Your task to perform on an android device: Show me productivity apps on the Play Store Image 0: 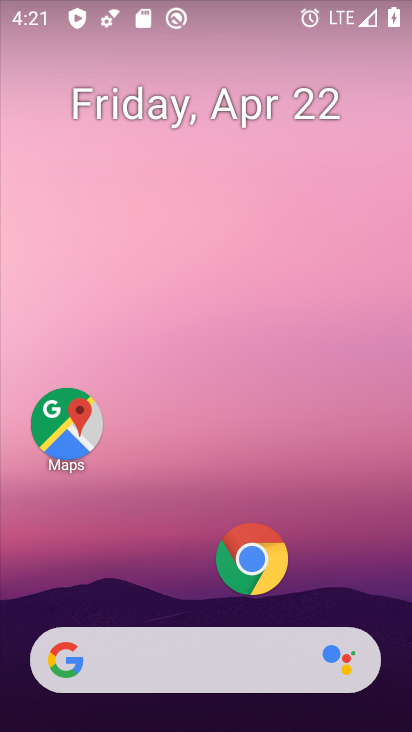
Step 0: drag from (166, 600) to (215, 55)
Your task to perform on an android device: Show me productivity apps on the Play Store Image 1: 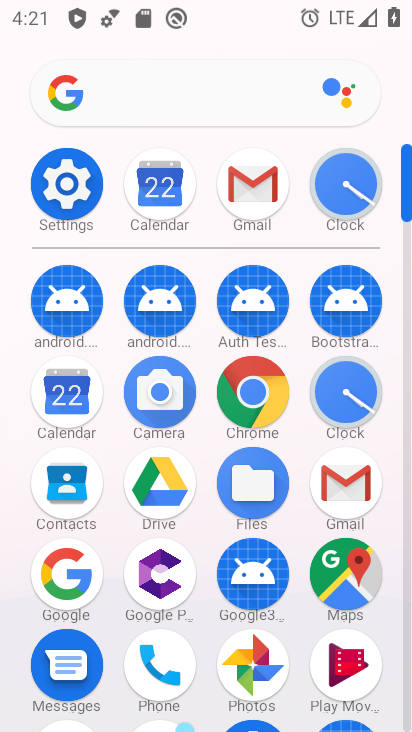
Step 1: drag from (109, 581) to (114, 266)
Your task to perform on an android device: Show me productivity apps on the Play Store Image 2: 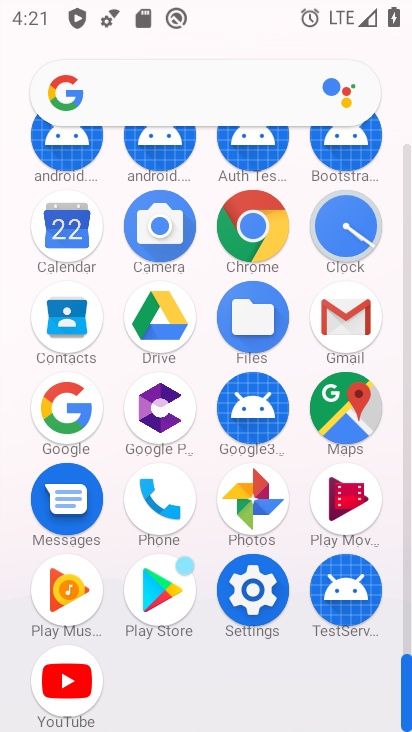
Step 2: click (145, 603)
Your task to perform on an android device: Show me productivity apps on the Play Store Image 3: 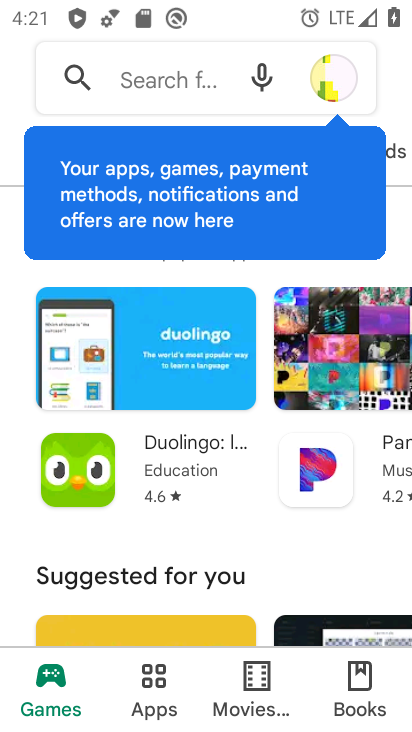
Step 3: click (157, 699)
Your task to perform on an android device: Show me productivity apps on the Play Store Image 4: 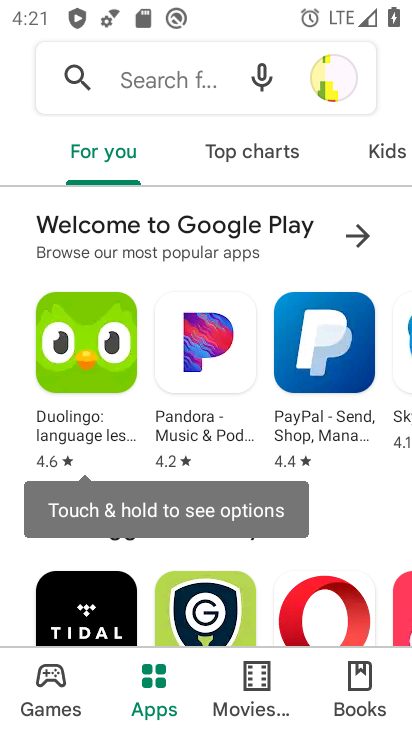
Step 4: drag from (294, 159) to (97, 160)
Your task to perform on an android device: Show me productivity apps on the Play Store Image 5: 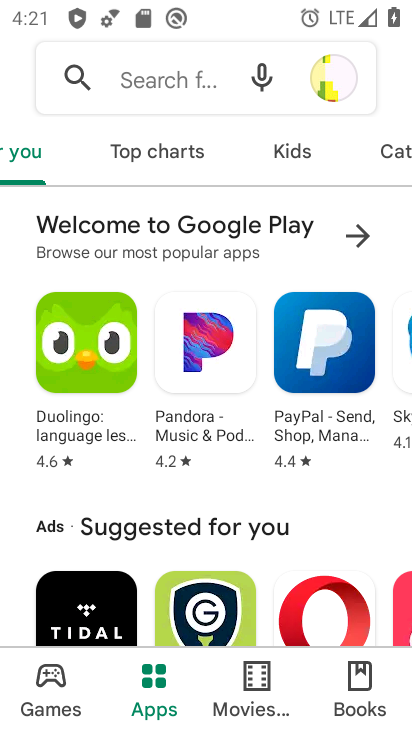
Step 5: drag from (256, 168) to (102, 127)
Your task to perform on an android device: Show me productivity apps on the Play Store Image 6: 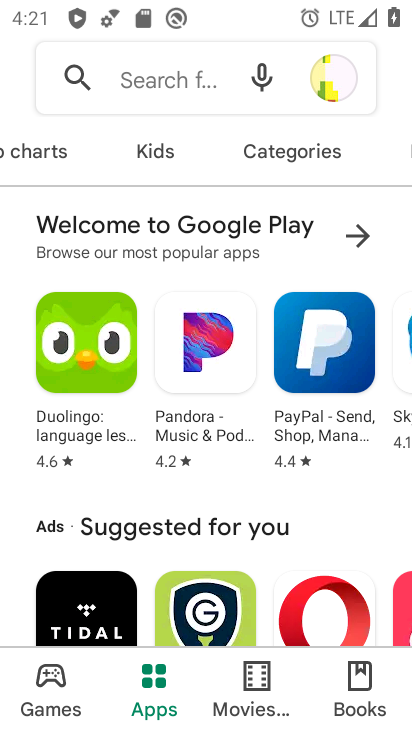
Step 6: click (254, 148)
Your task to perform on an android device: Show me productivity apps on the Play Store Image 7: 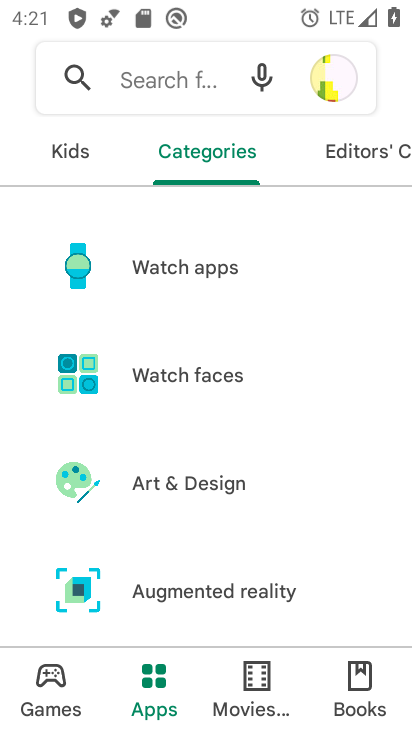
Step 7: drag from (181, 565) to (243, 256)
Your task to perform on an android device: Show me productivity apps on the Play Store Image 8: 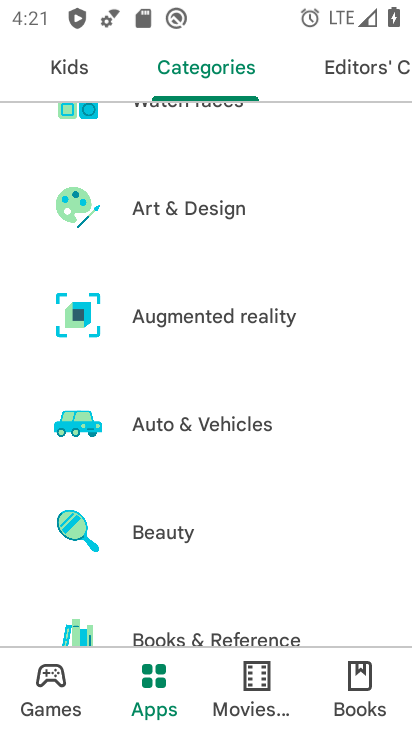
Step 8: drag from (171, 546) to (227, 342)
Your task to perform on an android device: Show me productivity apps on the Play Store Image 9: 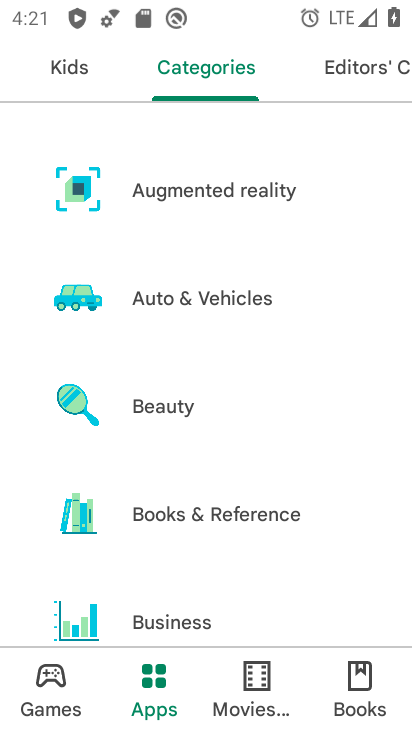
Step 9: drag from (160, 546) to (220, 281)
Your task to perform on an android device: Show me productivity apps on the Play Store Image 10: 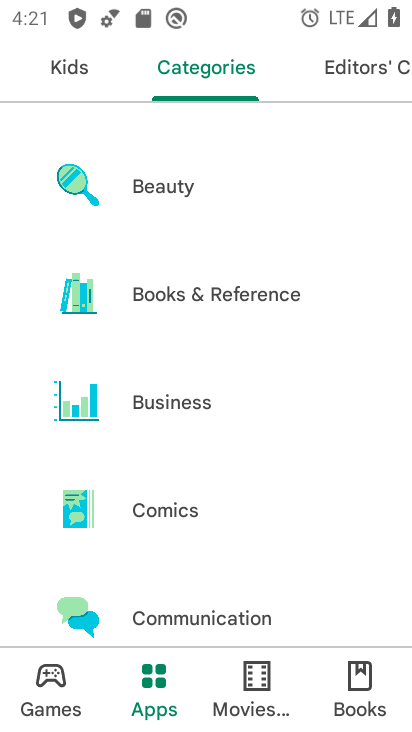
Step 10: drag from (168, 575) to (244, 68)
Your task to perform on an android device: Show me productivity apps on the Play Store Image 11: 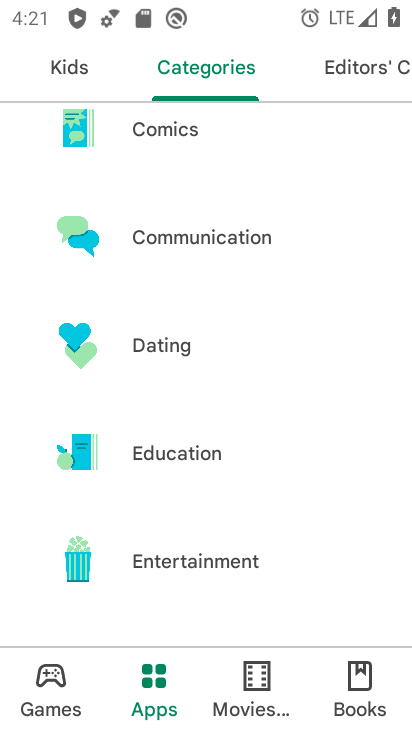
Step 11: drag from (171, 497) to (212, 269)
Your task to perform on an android device: Show me productivity apps on the Play Store Image 12: 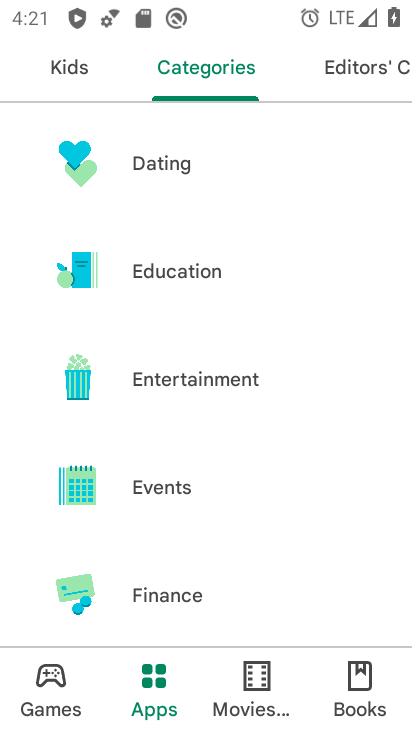
Step 12: drag from (151, 587) to (208, 153)
Your task to perform on an android device: Show me productivity apps on the Play Store Image 13: 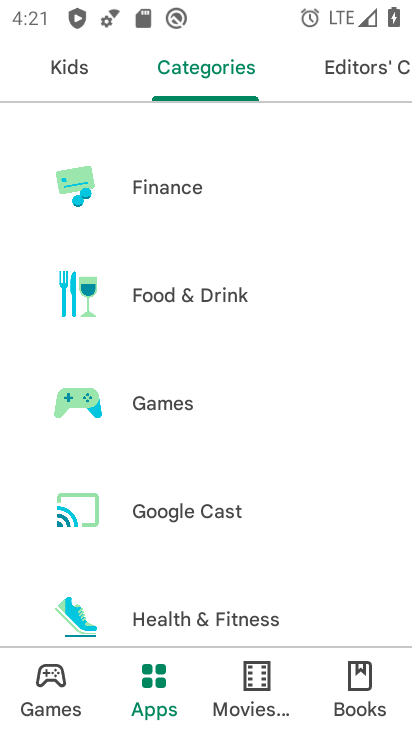
Step 13: drag from (152, 557) to (242, 90)
Your task to perform on an android device: Show me productivity apps on the Play Store Image 14: 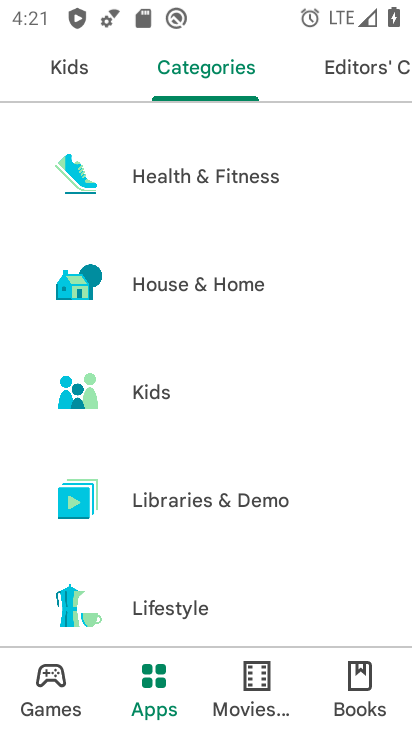
Step 14: drag from (168, 580) to (235, 232)
Your task to perform on an android device: Show me productivity apps on the Play Store Image 15: 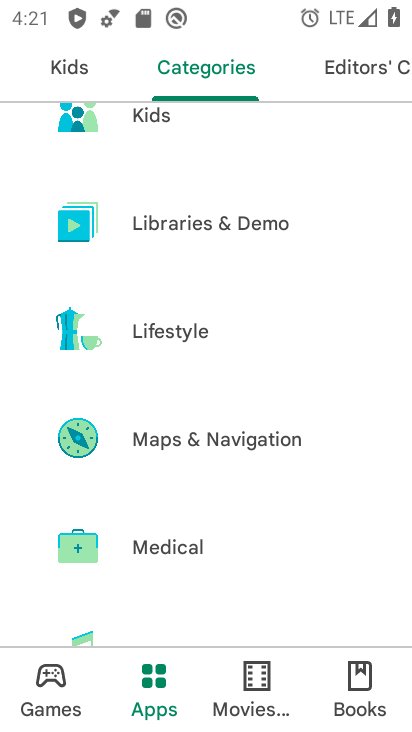
Step 15: drag from (189, 545) to (196, 302)
Your task to perform on an android device: Show me productivity apps on the Play Store Image 16: 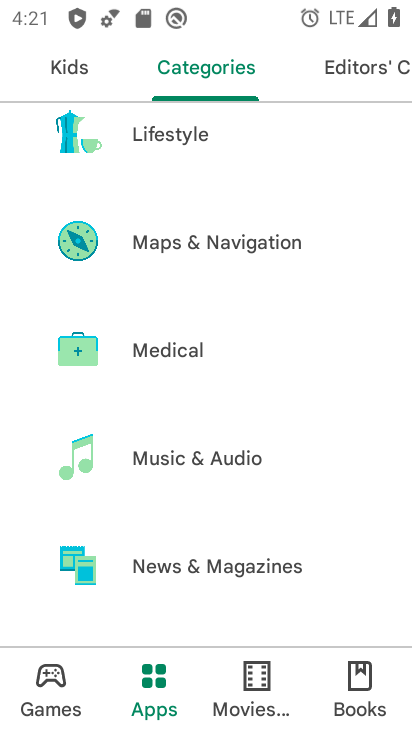
Step 16: click (205, 364)
Your task to perform on an android device: Show me productivity apps on the Play Store Image 17: 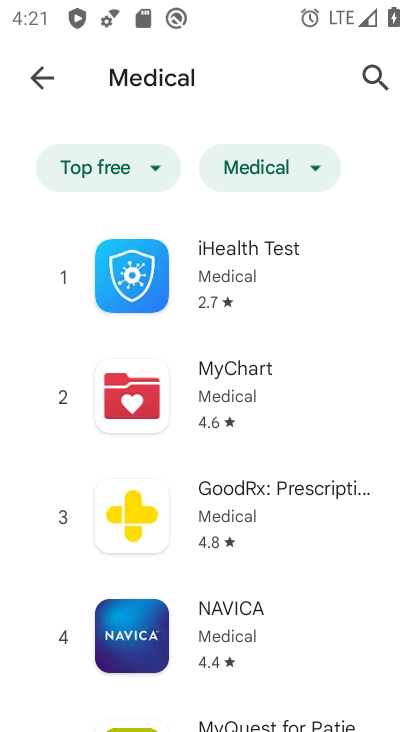
Step 17: click (42, 86)
Your task to perform on an android device: Show me productivity apps on the Play Store Image 18: 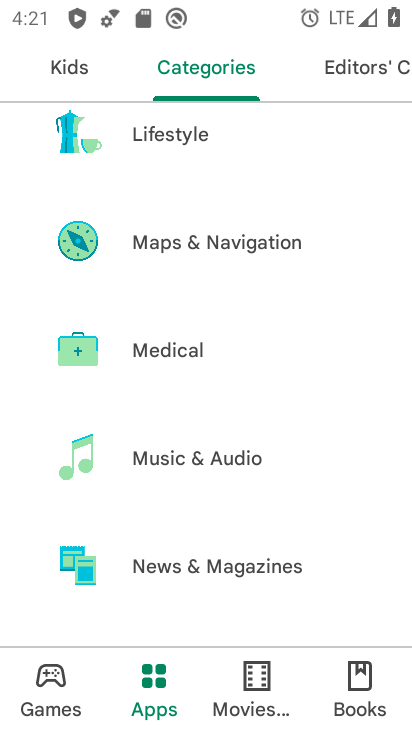
Step 18: drag from (165, 535) to (234, 156)
Your task to perform on an android device: Show me productivity apps on the Play Store Image 19: 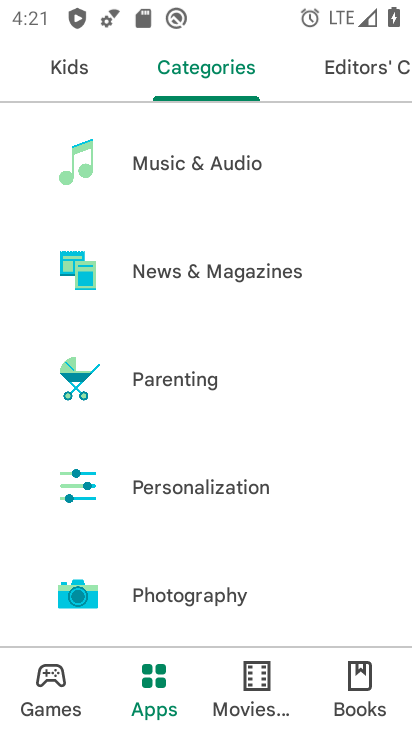
Step 19: drag from (180, 546) to (264, 124)
Your task to perform on an android device: Show me productivity apps on the Play Store Image 20: 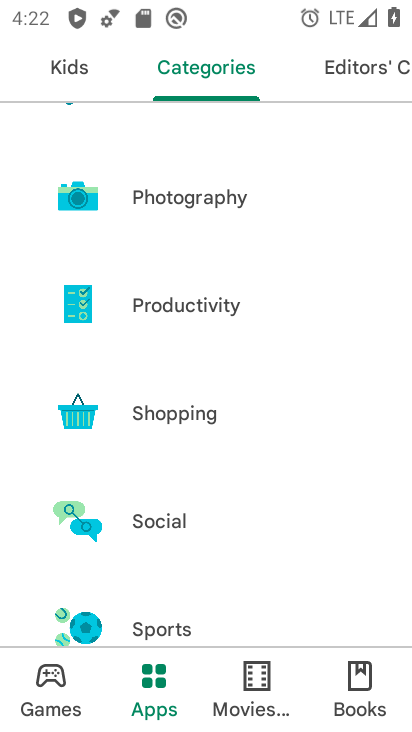
Step 20: click (193, 310)
Your task to perform on an android device: Show me productivity apps on the Play Store Image 21: 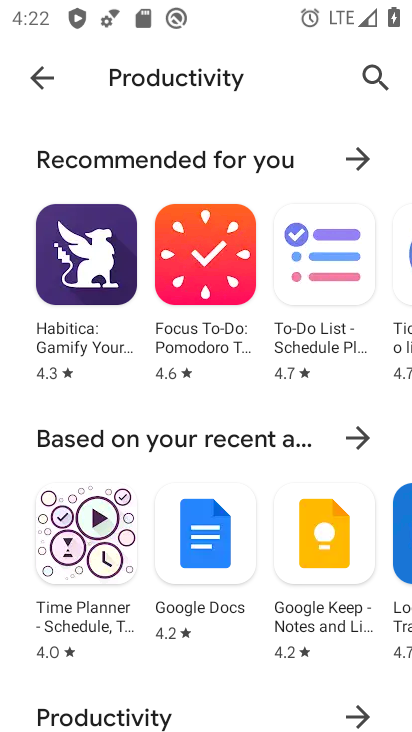
Step 21: task complete